Your task to perform on an android device: check out phone information Image 0: 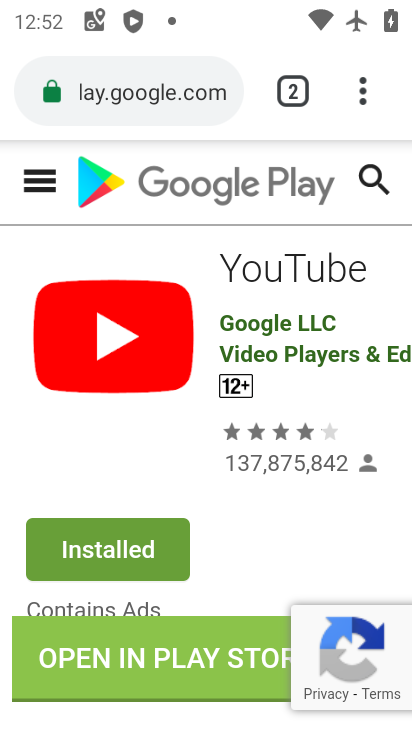
Step 0: press home button
Your task to perform on an android device: check out phone information Image 1: 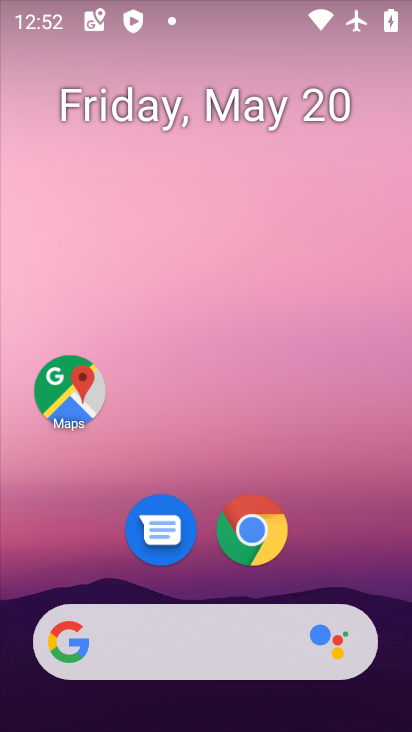
Step 1: drag from (219, 718) to (203, 91)
Your task to perform on an android device: check out phone information Image 2: 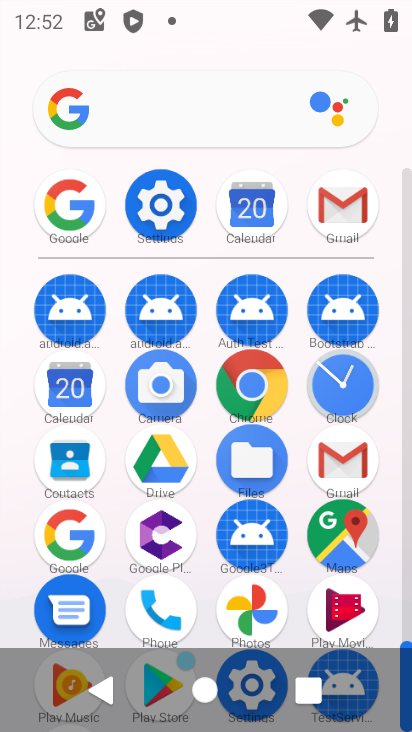
Step 2: click (154, 209)
Your task to perform on an android device: check out phone information Image 3: 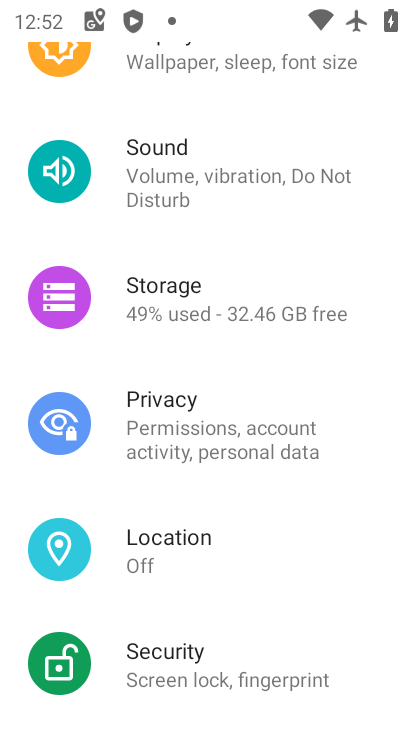
Step 3: drag from (319, 643) to (288, 57)
Your task to perform on an android device: check out phone information Image 4: 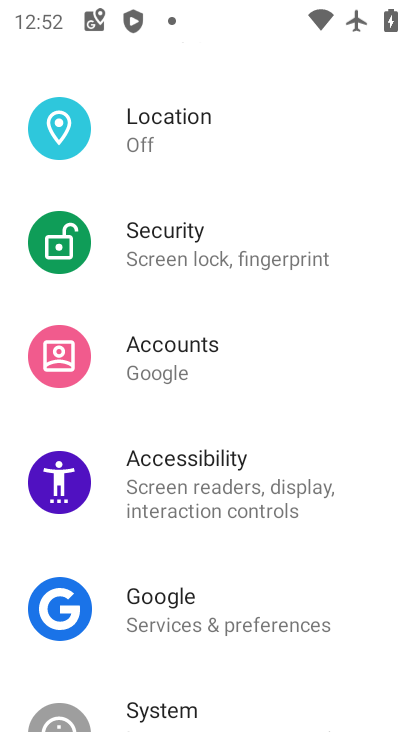
Step 4: drag from (196, 694) to (208, 92)
Your task to perform on an android device: check out phone information Image 5: 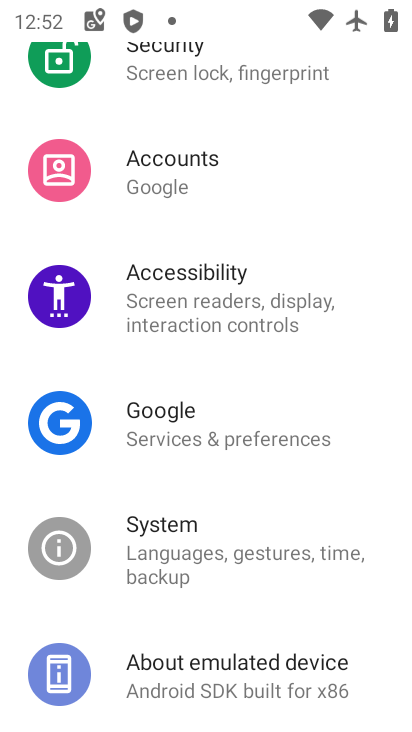
Step 5: click (203, 670)
Your task to perform on an android device: check out phone information Image 6: 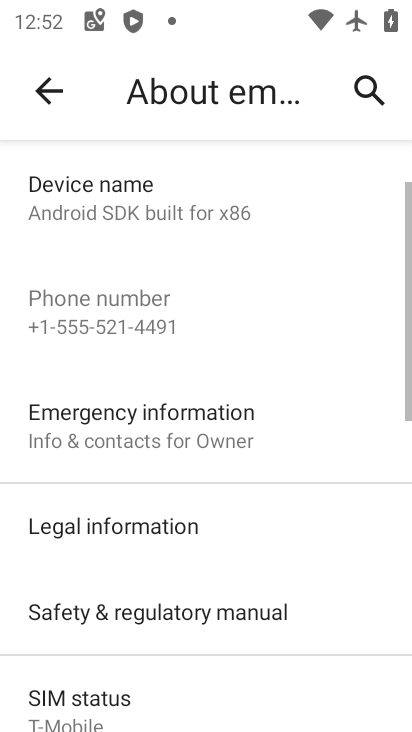
Step 6: task complete